Your task to perform on an android device: delete location history Image 0: 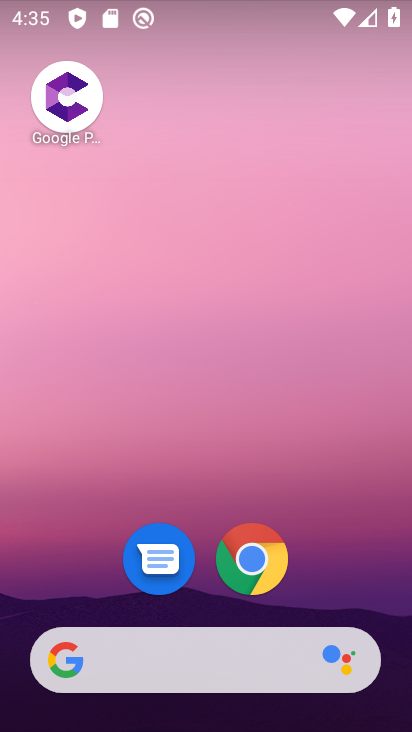
Step 0: drag from (336, 590) to (305, 187)
Your task to perform on an android device: delete location history Image 1: 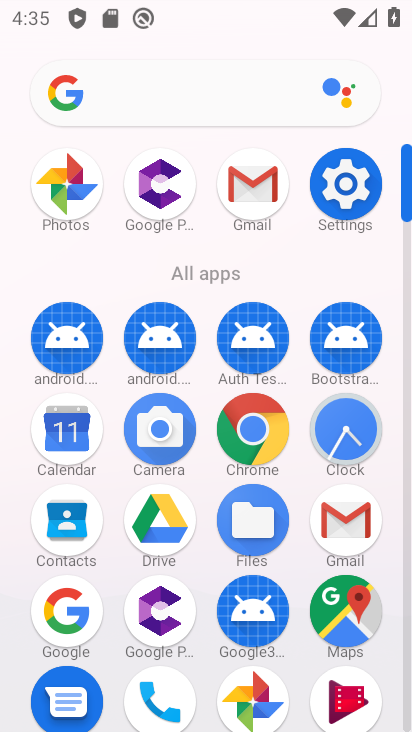
Step 1: click (337, 609)
Your task to perform on an android device: delete location history Image 2: 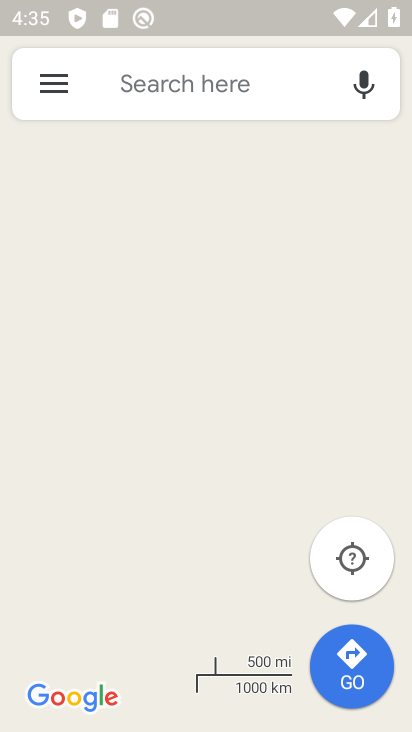
Step 2: click (206, 90)
Your task to perform on an android device: delete location history Image 3: 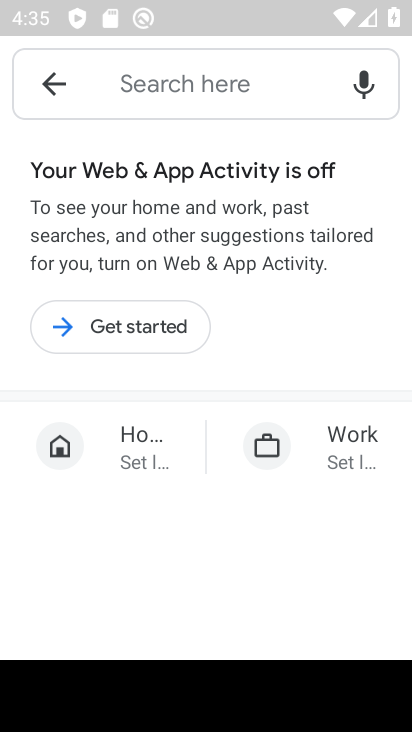
Step 3: click (49, 76)
Your task to perform on an android device: delete location history Image 4: 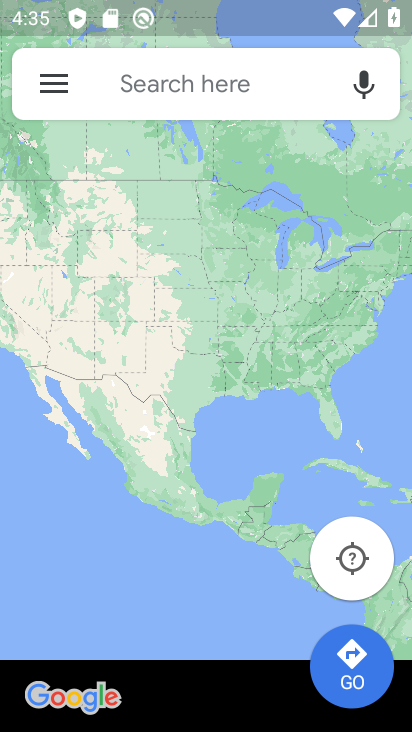
Step 4: click (55, 94)
Your task to perform on an android device: delete location history Image 5: 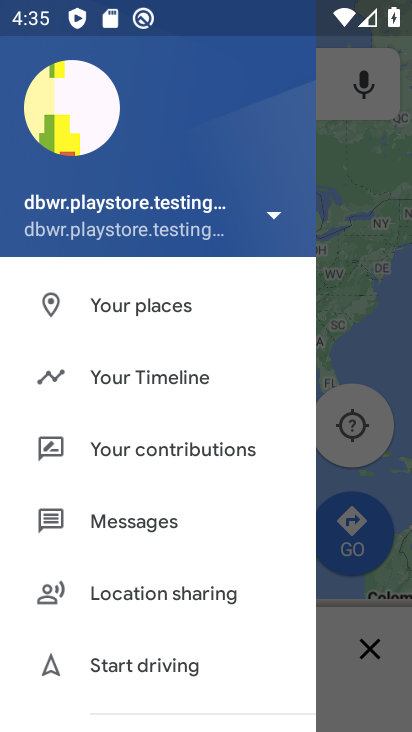
Step 5: click (135, 376)
Your task to perform on an android device: delete location history Image 6: 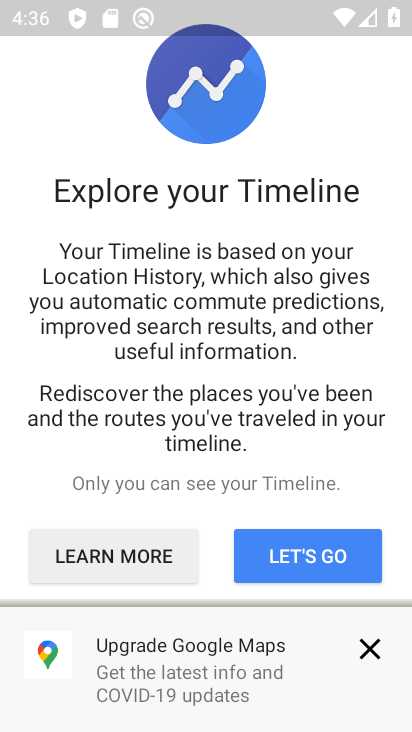
Step 6: click (368, 650)
Your task to perform on an android device: delete location history Image 7: 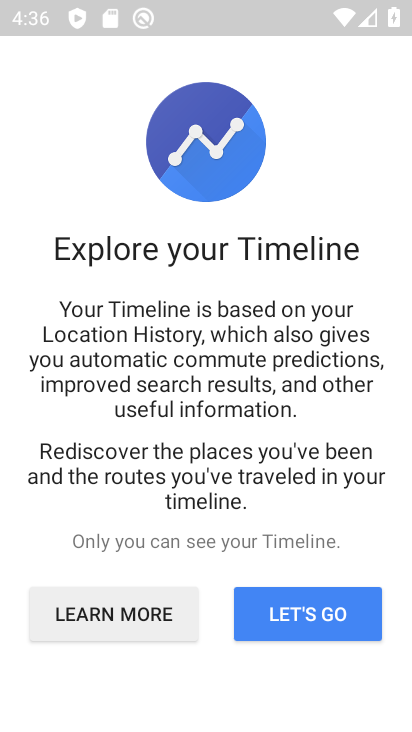
Step 7: click (284, 626)
Your task to perform on an android device: delete location history Image 8: 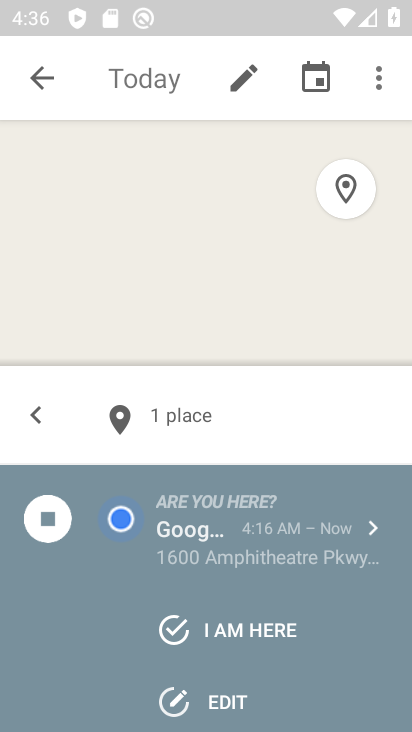
Step 8: click (378, 85)
Your task to perform on an android device: delete location history Image 9: 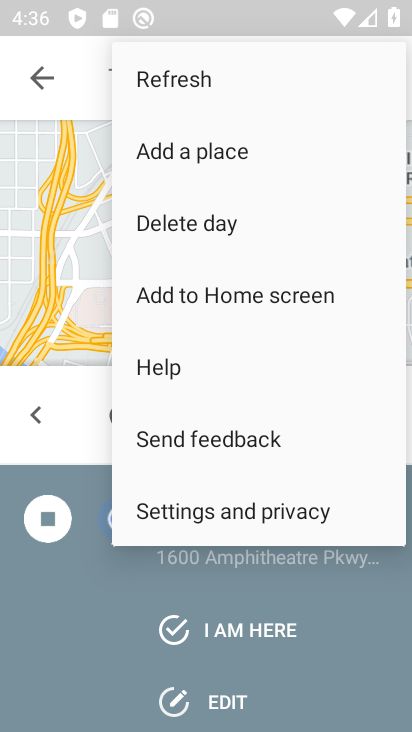
Step 9: click (237, 512)
Your task to perform on an android device: delete location history Image 10: 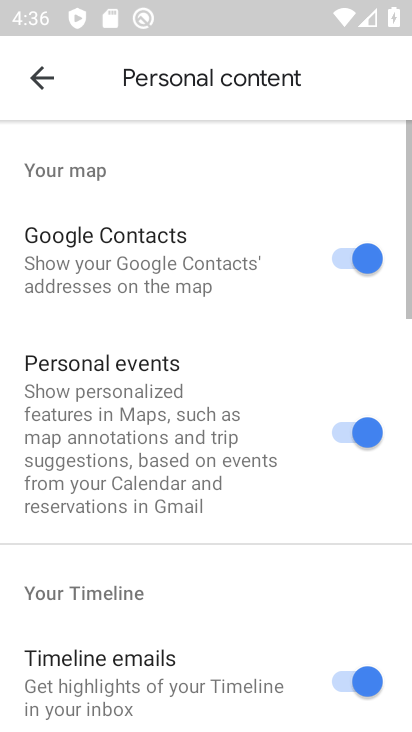
Step 10: drag from (215, 626) to (241, 364)
Your task to perform on an android device: delete location history Image 11: 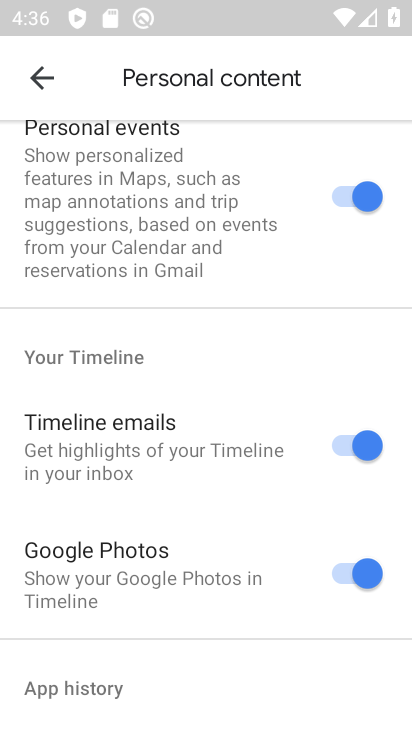
Step 11: drag from (180, 661) to (253, 326)
Your task to perform on an android device: delete location history Image 12: 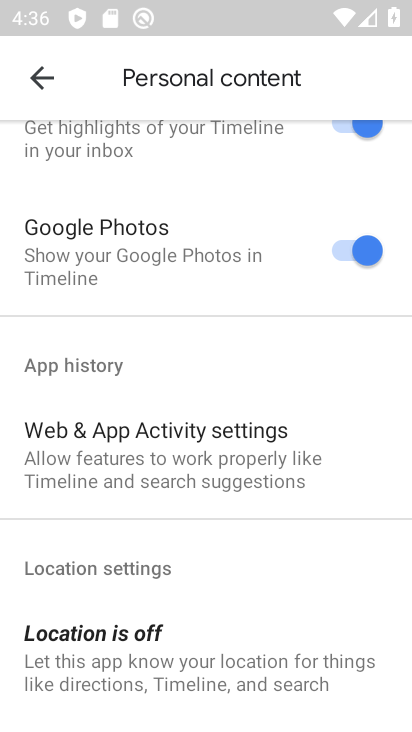
Step 12: drag from (198, 626) to (235, 389)
Your task to perform on an android device: delete location history Image 13: 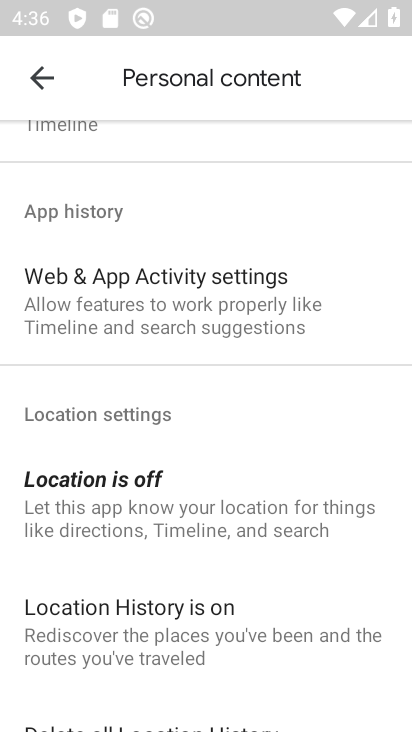
Step 13: drag from (194, 660) to (255, 366)
Your task to perform on an android device: delete location history Image 14: 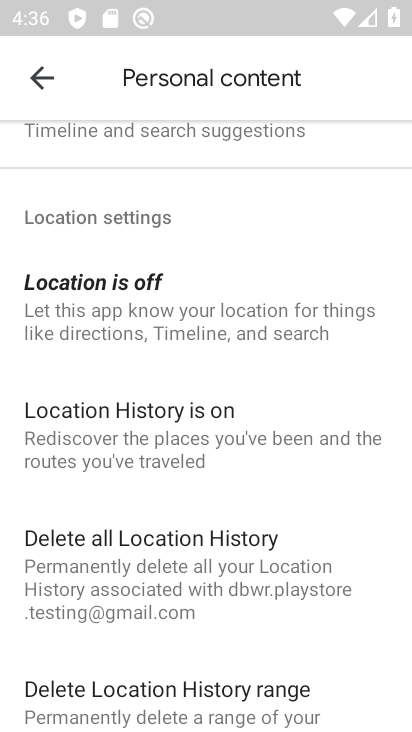
Step 14: click (178, 574)
Your task to perform on an android device: delete location history Image 15: 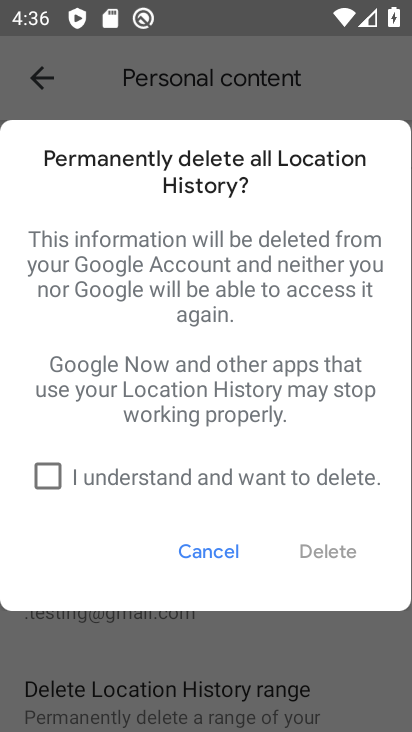
Step 15: click (49, 478)
Your task to perform on an android device: delete location history Image 16: 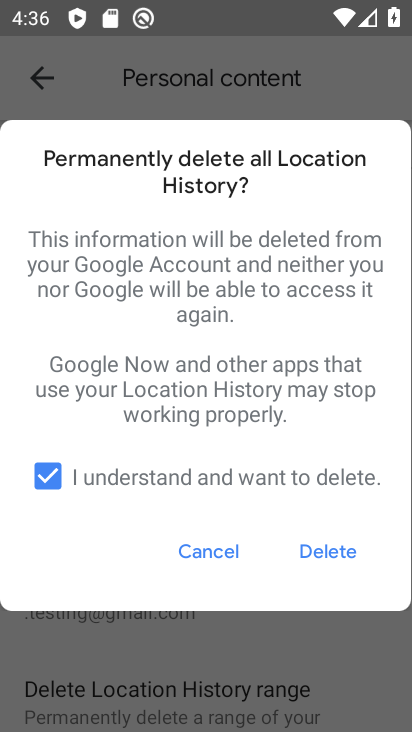
Step 16: click (319, 552)
Your task to perform on an android device: delete location history Image 17: 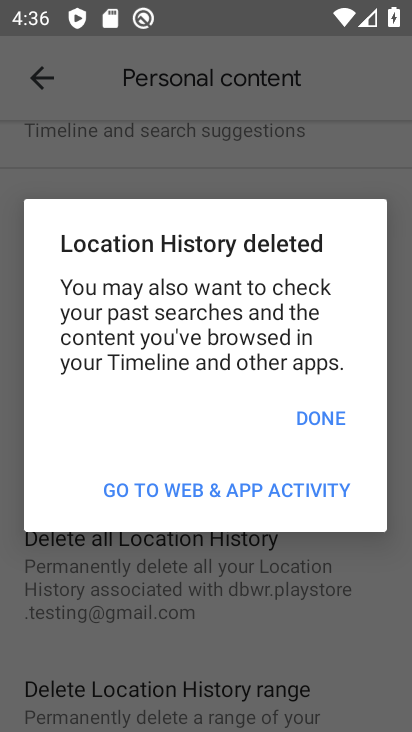
Step 17: click (332, 412)
Your task to perform on an android device: delete location history Image 18: 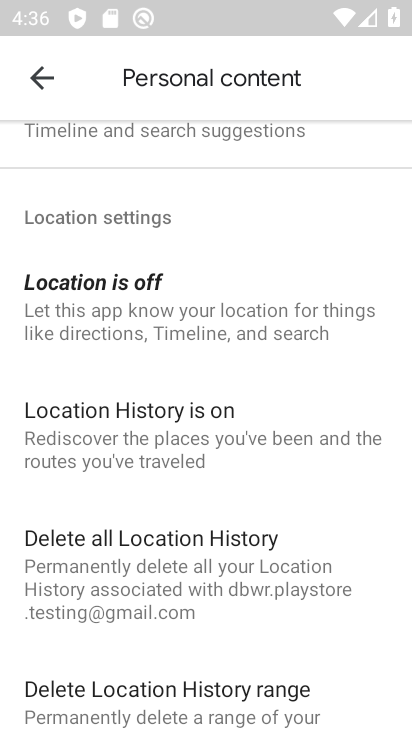
Step 18: task complete